Your task to perform on an android device: Clear the cart on costco.com. Add razer blade to the cart on costco.com, then select checkout. Image 0: 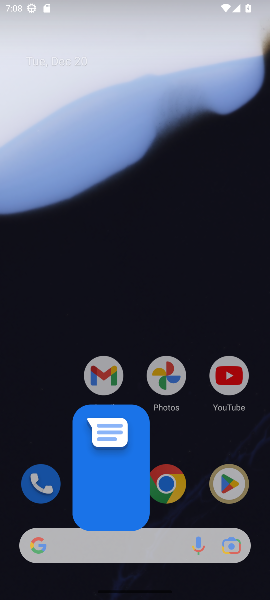
Step 0: press home button
Your task to perform on an android device: Clear the cart on costco.com. Add razer blade to the cart on costco.com, then select checkout. Image 1: 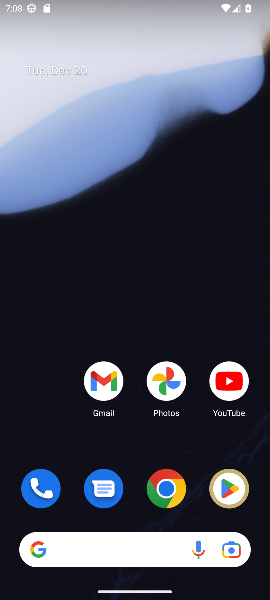
Step 1: drag from (66, 441) to (49, 53)
Your task to perform on an android device: Clear the cart on costco.com. Add razer blade to the cart on costco.com, then select checkout. Image 2: 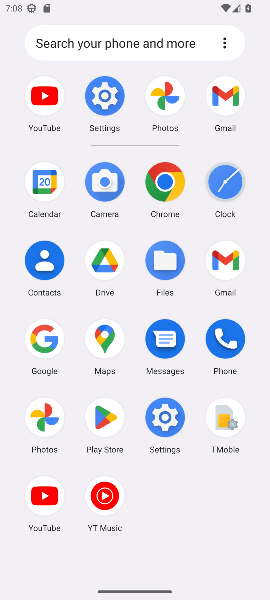
Step 2: click (44, 336)
Your task to perform on an android device: Clear the cart on costco.com. Add razer blade to the cart on costco.com, then select checkout. Image 3: 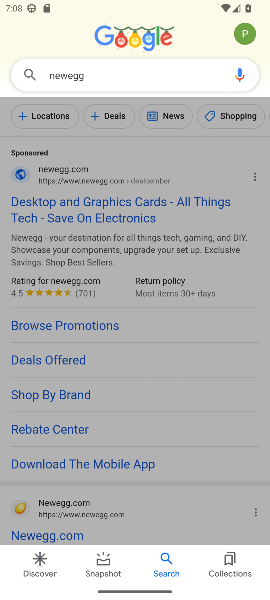
Step 3: click (90, 76)
Your task to perform on an android device: Clear the cart on costco.com. Add razer blade to the cart on costco.com, then select checkout. Image 4: 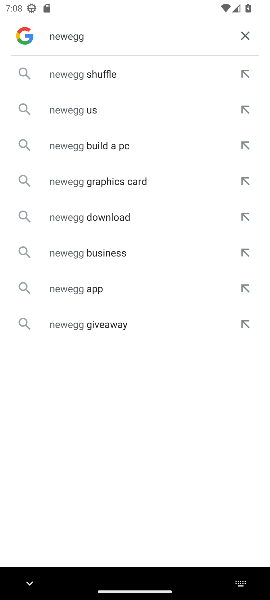
Step 4: click (242, 31)
Your task to perform on an android device: Clear the cart on costco.com. Add razer blade to the cart on costco.com, then select checkout. Image 5: 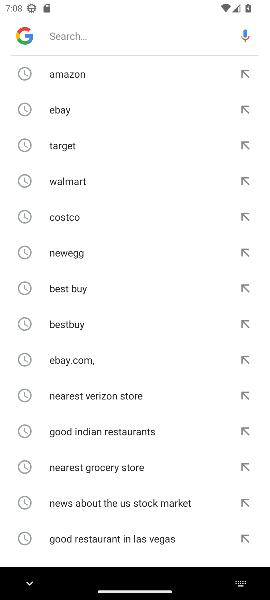
Step 5: type "costco.com"
Your task to perform on an android device: Clear the cart on costco.com. Add razer blade to the cart on costco.com, then select checkout. Image 6: 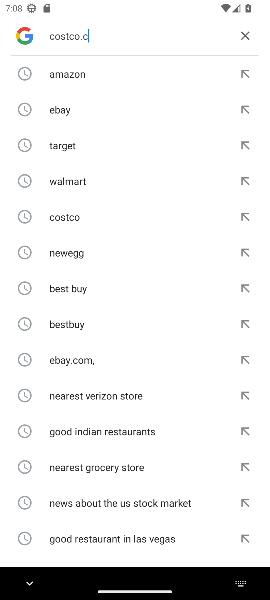
Step 6: press enter
Your task to perform on an android device: Clear the cart on costco.com. Add razer blade to the cart on costco.com, then select checkout. Image 7: 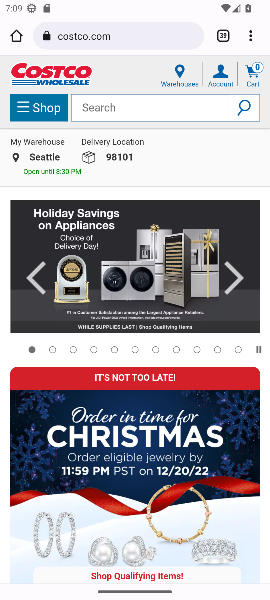
Step 7: click (255, 69)
Your task to perform on an android device: Clear the cart on costco.com. Add razer blade to the cart on costco.com, then select checkout. Image 8: 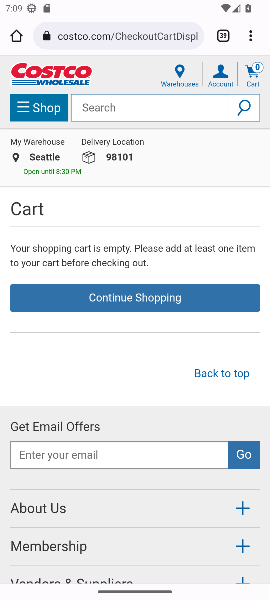
Step 8: click (90, 103)
Your task to perform on an android device: Clear the cart on costco.com. Add razer blade to the cart on costco.com, then select checkout. Image 9: 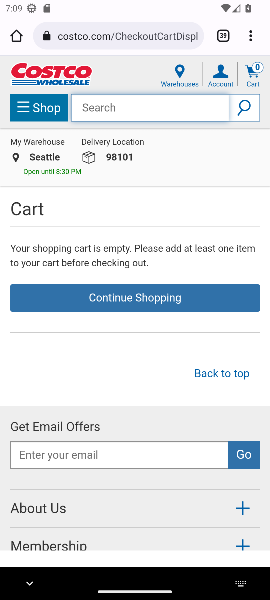
Step 9: type "razer blade"
Your task to perform on an android device: Clear the cart on costco.com. Add razer blade to the cart on costco.com, then select checkout. Image 10: 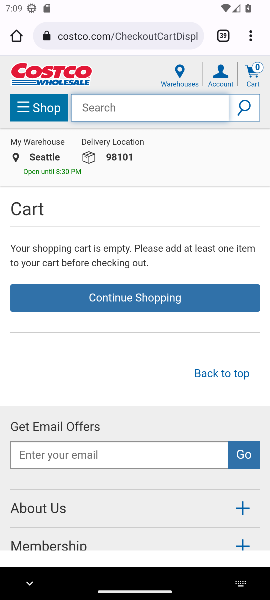
Step 10: press enter
Your task to perform on an android device: Clear the cart on costco.com. Add razer blade to the cart on costco.com, then select checkout. Image 11: 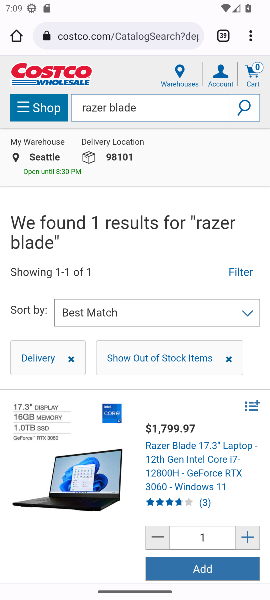
Step 11: drag from (187, 479) to (178, 192)
Your task to perform on an android device: Clear the cart on costco.com. Add razer blade to the cart on costco.com, then select checkout. Image 12: 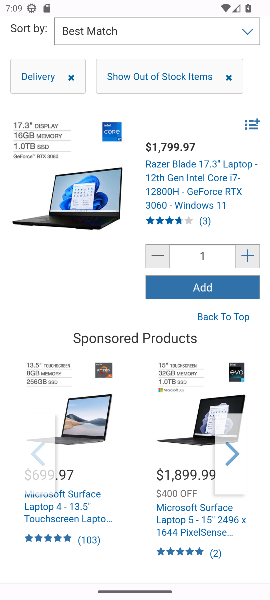
Step 12: click (203, 286)
Your task to perform on an android device: Clear the cart on costco.com. Add razer blade to the cart on costco.com, then select checkout. Image 13: 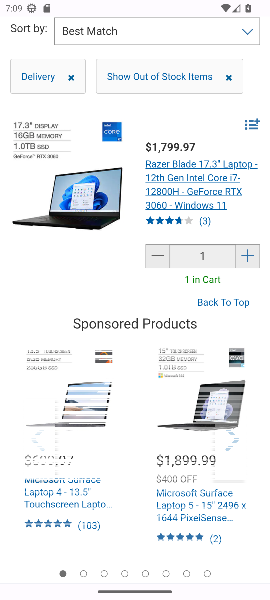
Step 13: drag from (131, 130) to (133, 393)
Your task to perform on an android device: Clear the cart on costco.com. Add razer blade to the cart on costco.com, then select checkout. Image 14: 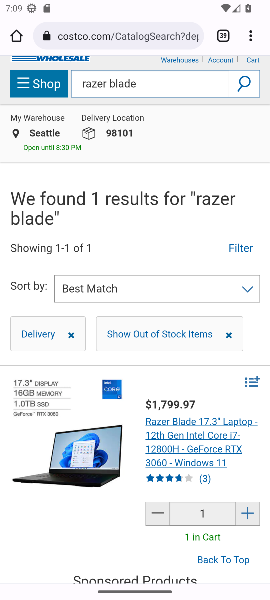
Step 14: drag from (173, 130) to (148, 418)
Your task to perform on an android device: Clear the cart on costco.com. Add razer blade to the cart on costco.com, then select checkout. Image 15: 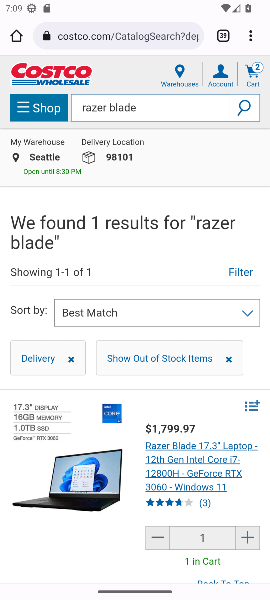
Step 15: click (249, 70)
Your task to perform on an android device: Clear the cart on costco.com. Add razer blade to the cart on costco.com, then select checkout. Image 16: 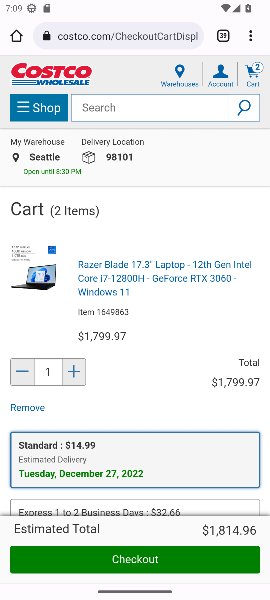
Step 16: click (118, 558)
Your task to perform on an android device: Clear the cart on costco.com. Add razer blade to the cart on costco.com, then select checkout. Image 17: 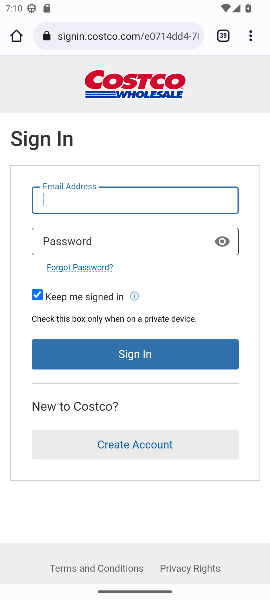
Step 17: task complete